Your task to perform on an android device: Go to network settings Image 0: 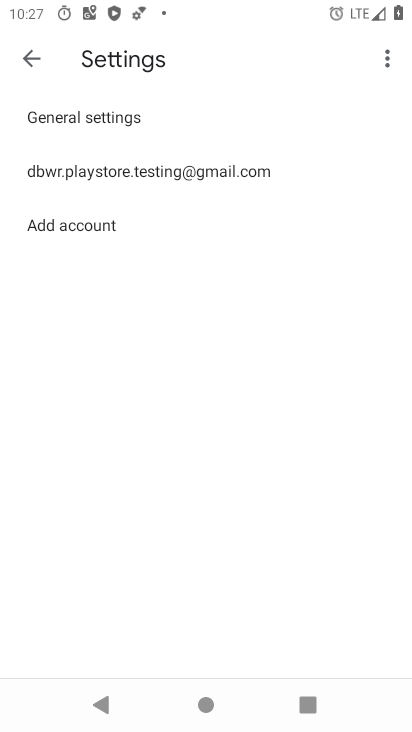
Step 0: press back button
Your task to perform on an android device: Go to network settings Image 1: 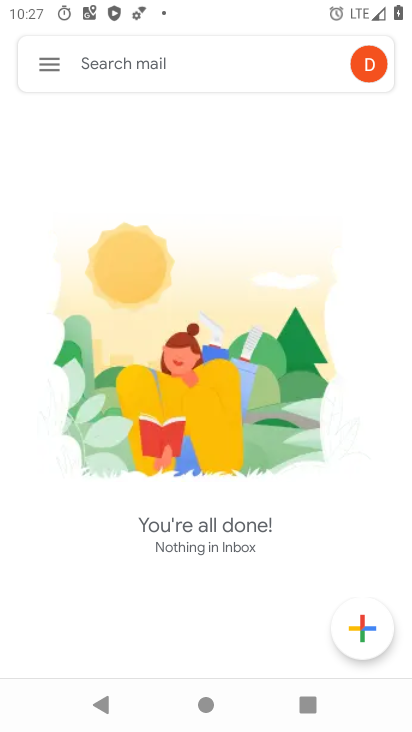
Step 1: press back button
Your task to perform on an android device: Go to network settings Image 2: 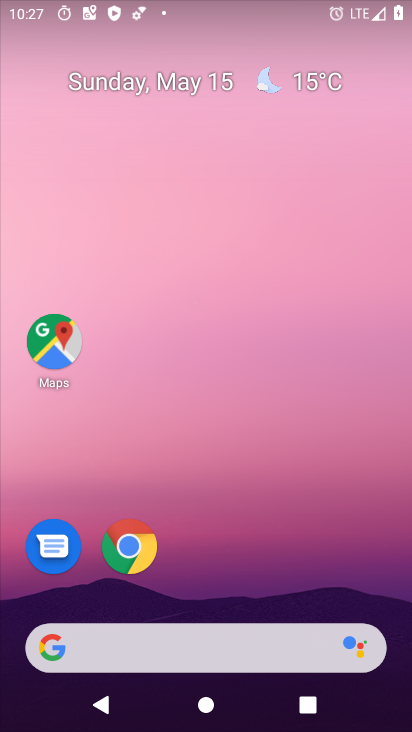
Step 2: drag from (287, 658) to (191, 257)
Your task to perform on an android device: Go to network settings Image 3: 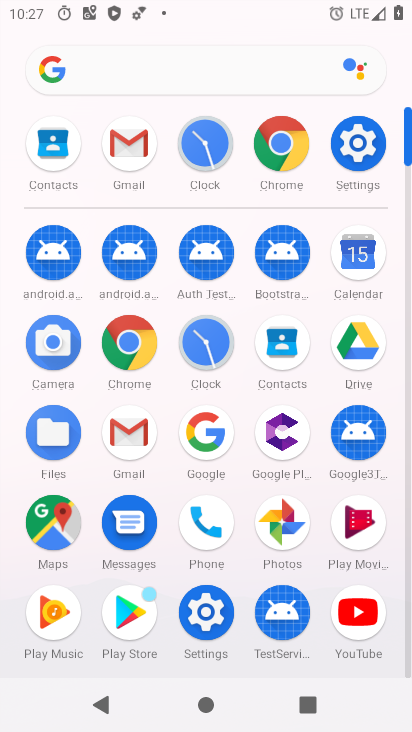
Step 3: click (358, 145)
Your task to perform on an android device: Go to network settings Image 4: 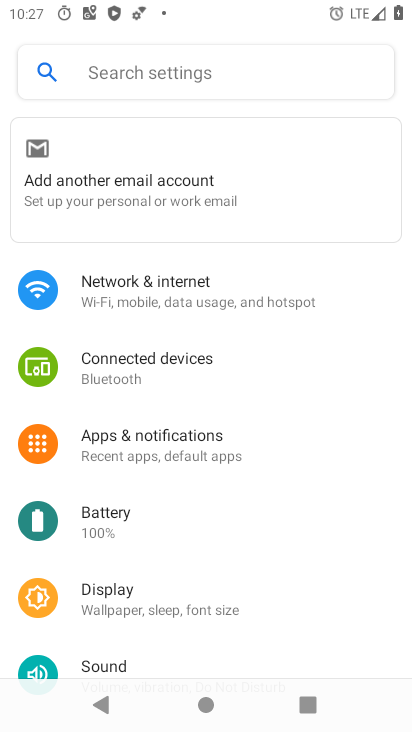
Step 4: click (174, 288)
Your task to perform on an android device: Go to network settings Image 5: 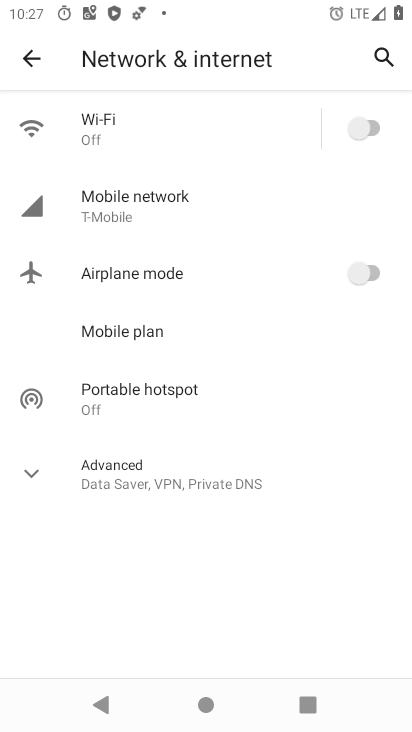
Step 5: task complete